Your task to perform on an android device: Open Android settings Image 0: 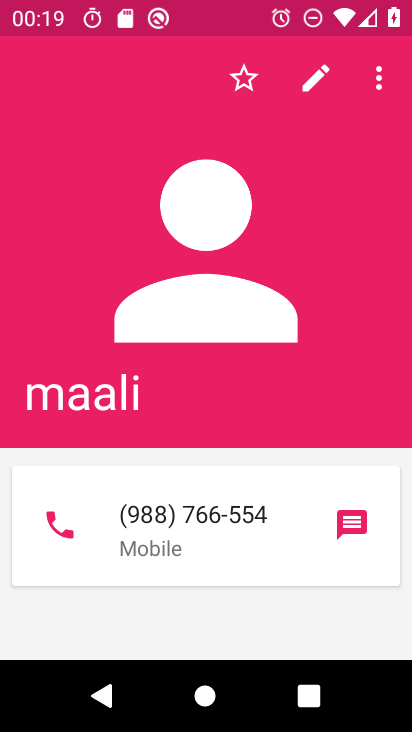
Step 0: press home button
Your task to perform on an android device: Open Android settings Image 1: 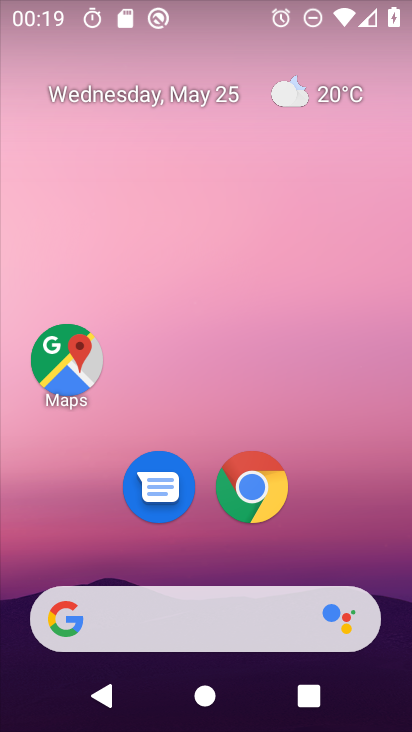
Step 1: drag from (347, 572) to (386, 44)
Your task to perform on an android device: Open Android settings Image 2: 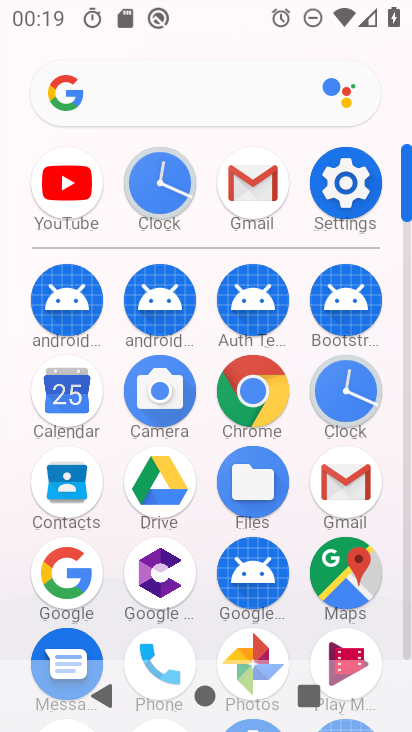
Step 2: click (350, 191)
Your task to perform on an android device: Open Android settings Image 3: 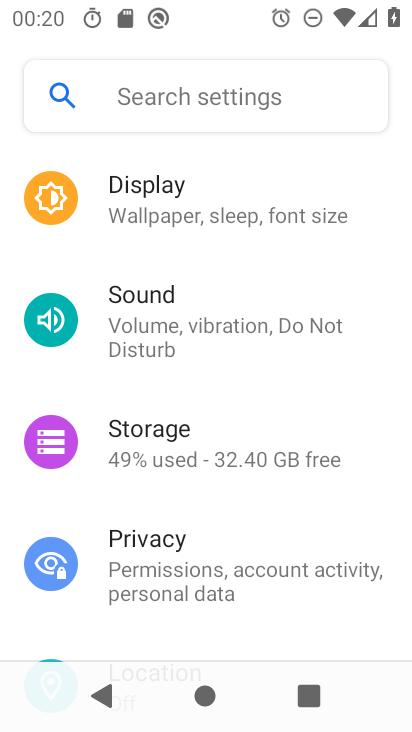
Step 3: task complete